Your task to perform on an android device: allow notifications from all sites in the chrome app Image 0: 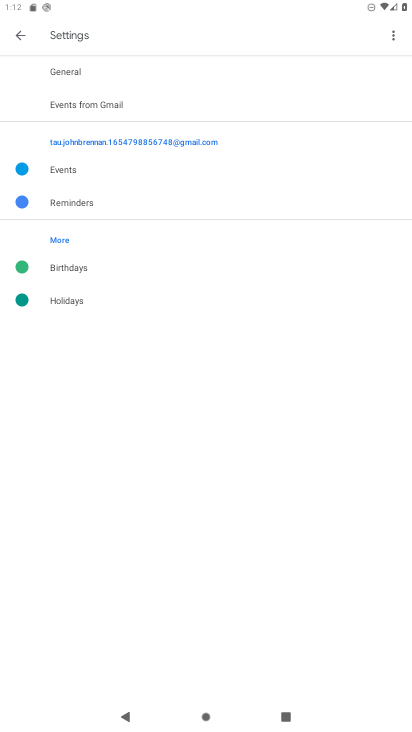
Step 0: press home button
Your task to perform on an android device: allow notifications from all sites in the chrome app Image 1: 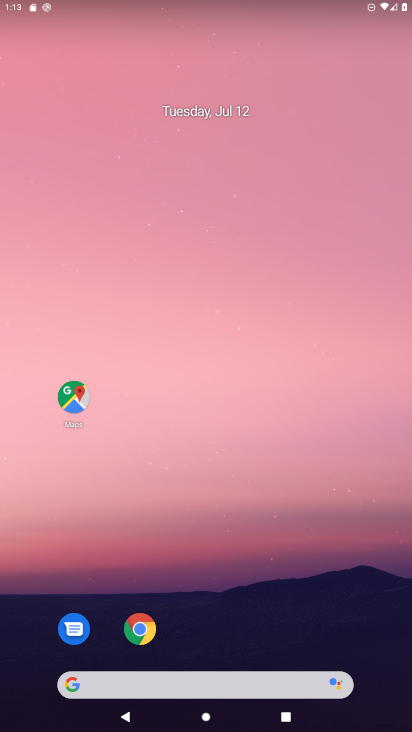
Step 1: click (136, 624)
Your task to perform on an android device: allow notifications from all sites in the chrome app Image 2: 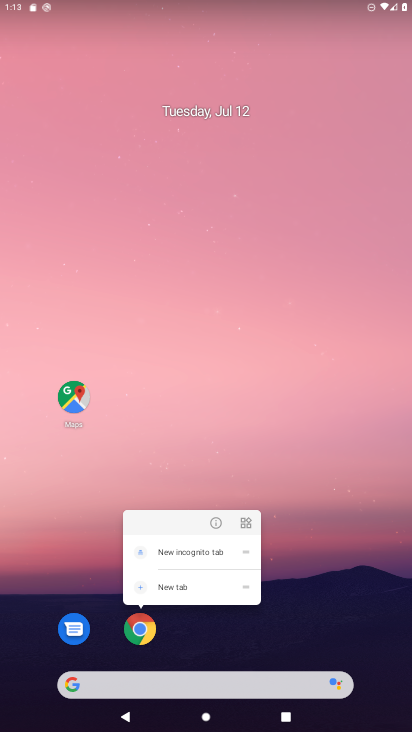
Step 2: click (137, 624)
Your task to perform on an android device: allow notifications from all sites in the chrome app Image 3: 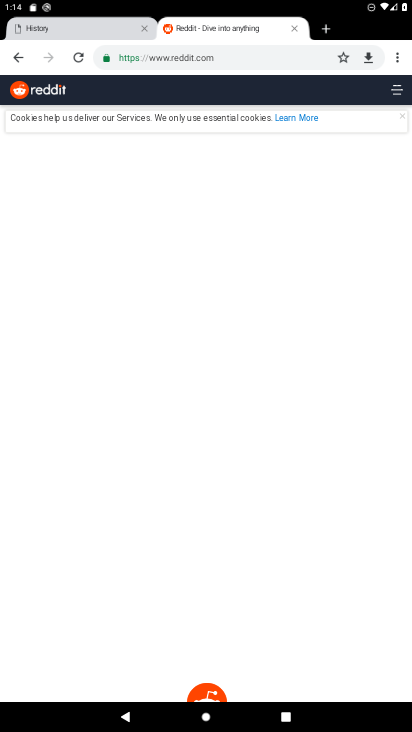
Step 3: click (400, 54)
Your task to perform on an android device: allow notifications from all sites in the chrome app Image 4: 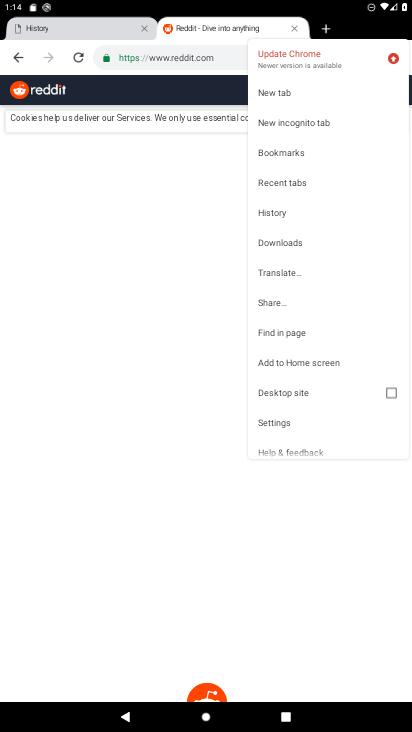
Step 4: click (293, 421)
Your task to perform on an android device: allow notifications from all sites in the chrome app Image 5: 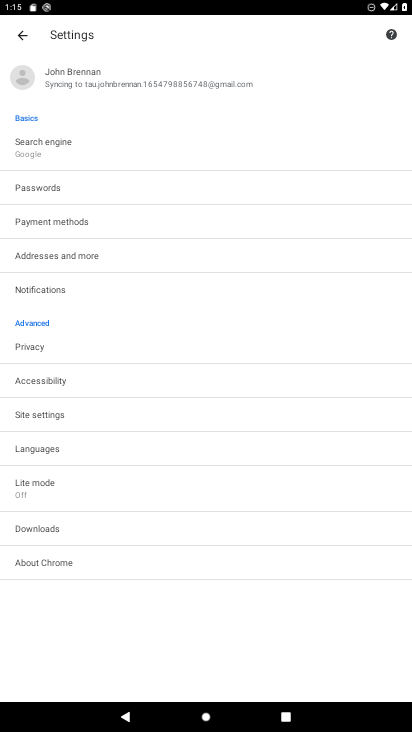
Step 5: click (75, 411)
Your task to perform on an android device: allow notifications from all sites in the chrome app Image 6: 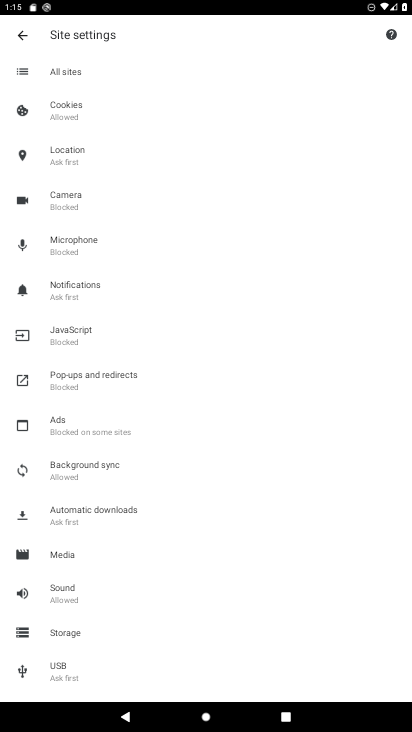
Step 6: click (87, 68)
Your task to perform on an android device: allow notifications from all sites in the chrome app Image 7: 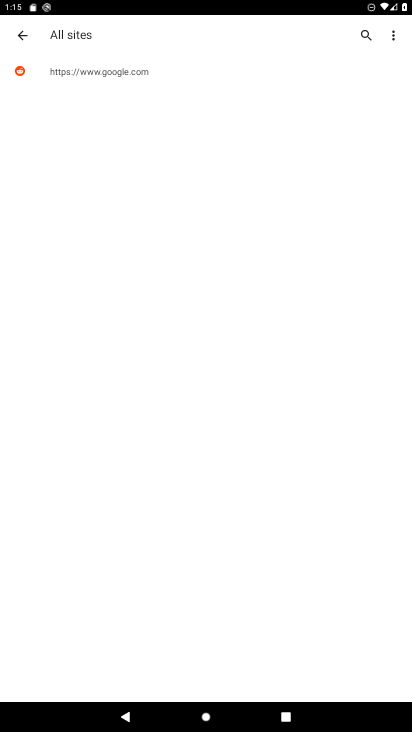
Step 7: click (113, 70)
Your task to perform on an android device: allow notifications from all sites in the chrome app Image 8: 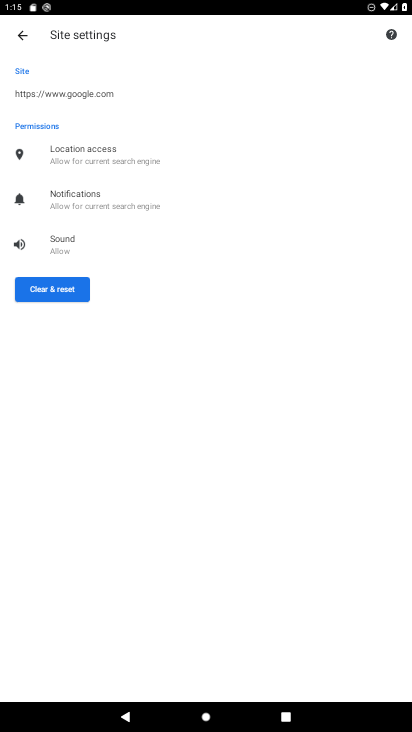
Step 8: task complete